Your task to perform on an android device: Is it going to rain today? Image 0: 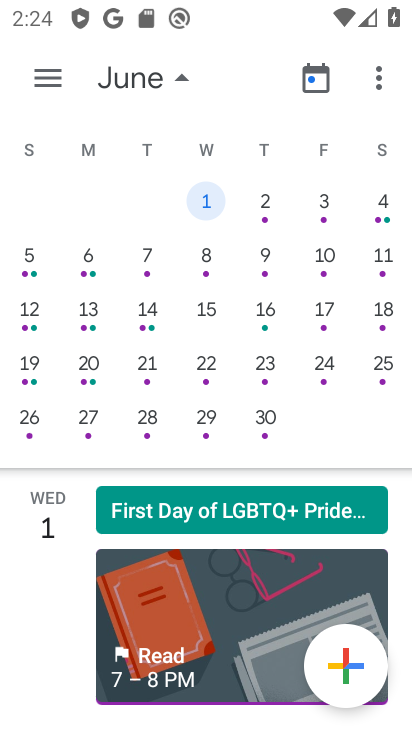
Step 0: press home button
Your task to perform on an android device: Is it going to rain today? Image 1: 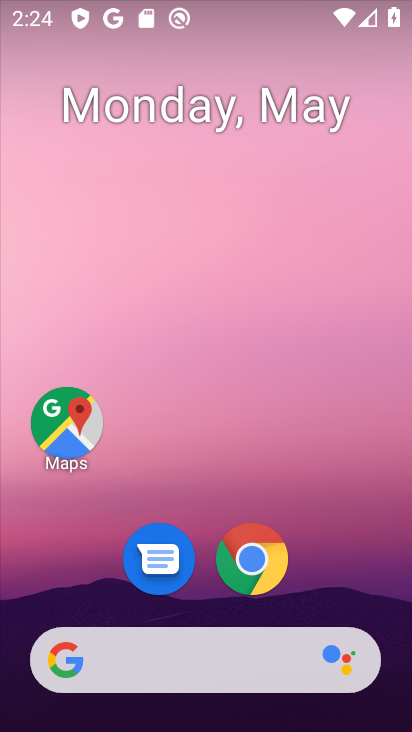
Step 1: click (138, 650)
Your task to perform on an android device: Is it going to rain today? Image 2: 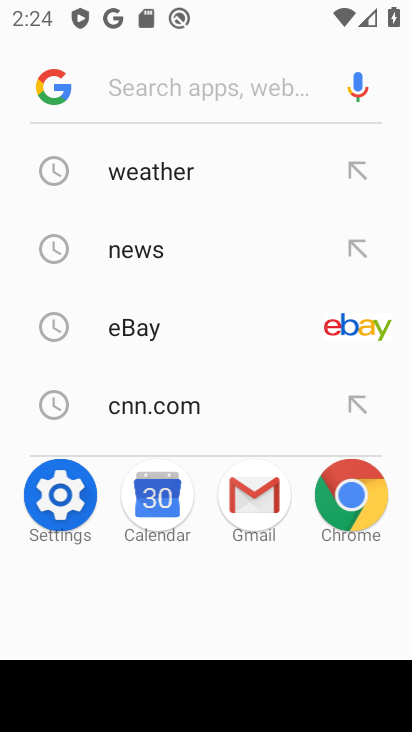
Step 2: type "is it going to rain today"
Your task to perform on an android device: Is it going to rain today? Image 3: 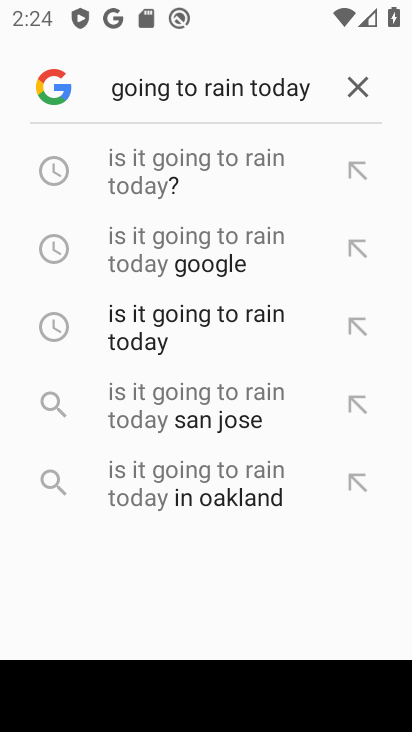
Step 3: click (215, 173)
Your task to perform on an android device: Is it going to rain today? Image 4: 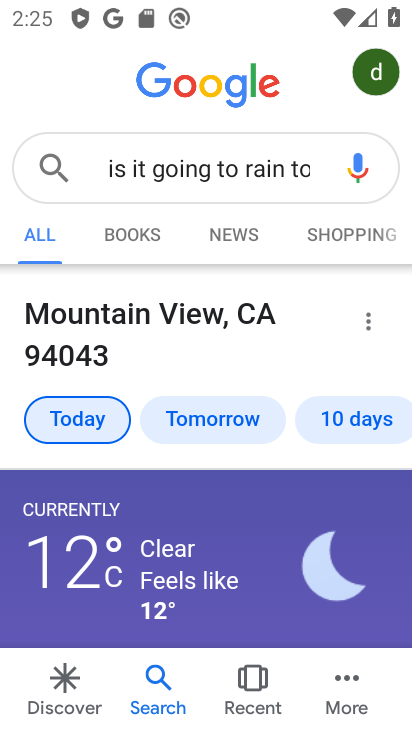
Step 4: task complete